Your task to perform on an android device: turn on location history Image 0: 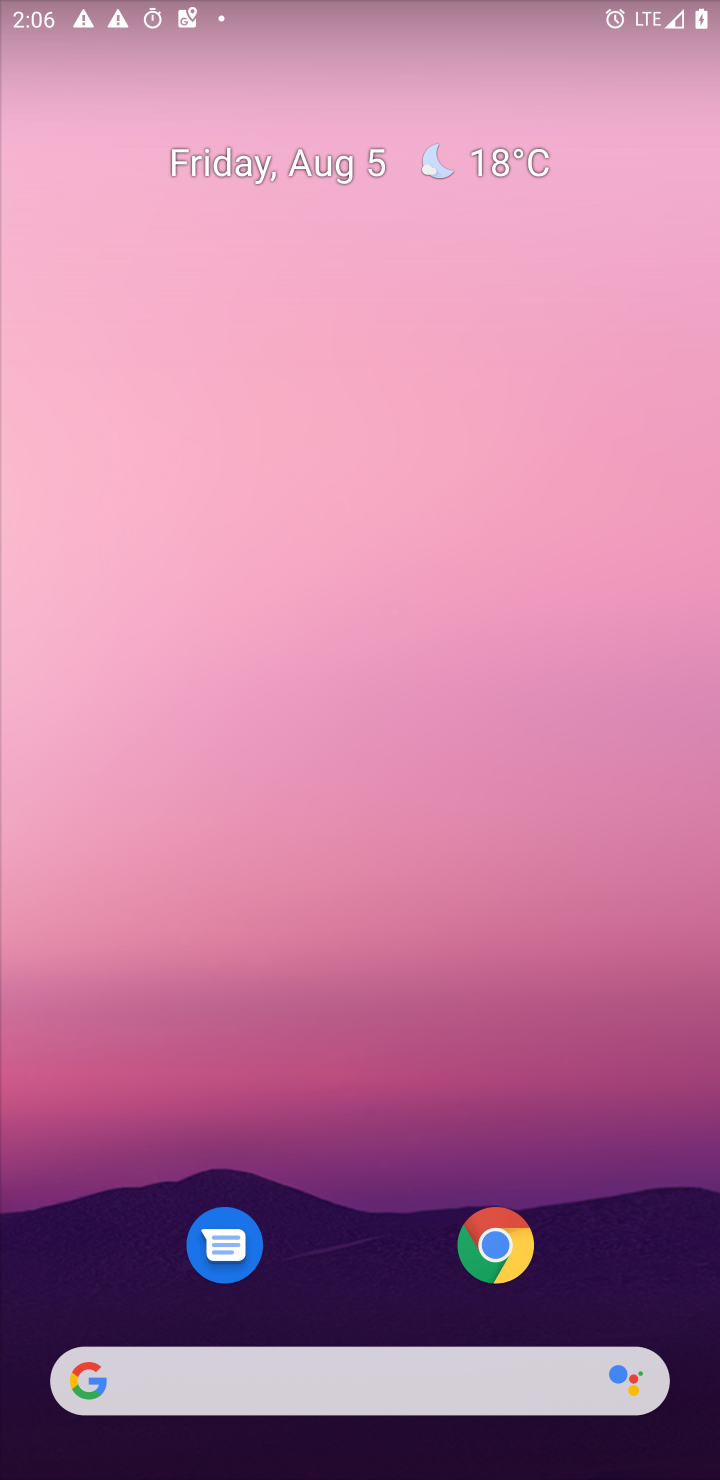
Step 0: drag from (439, 660) to (539, 80)
Your task to perform on an android device: turn on location history Image 1: 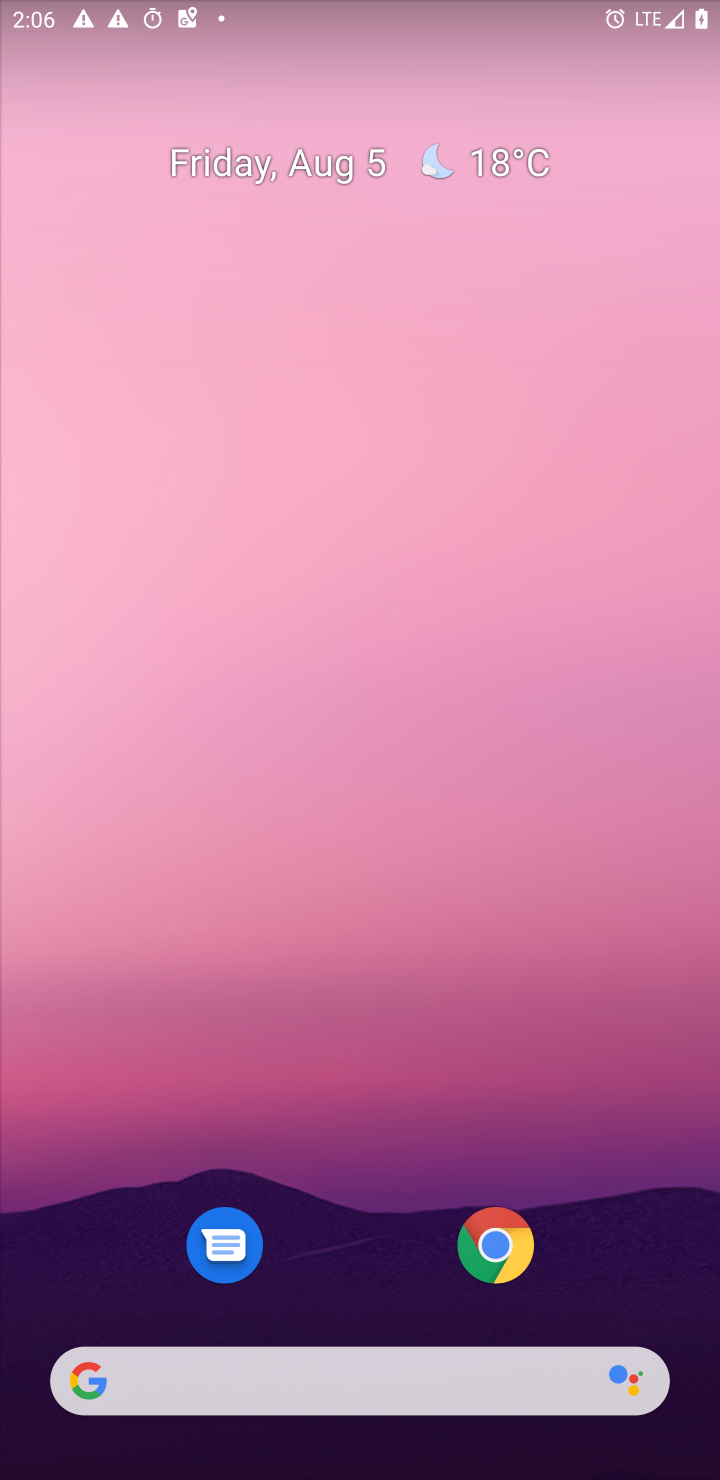
Step 1: drag from (361, 1301) to (545, 50)
Your task to perform on an android device: turn on location history Image 2: 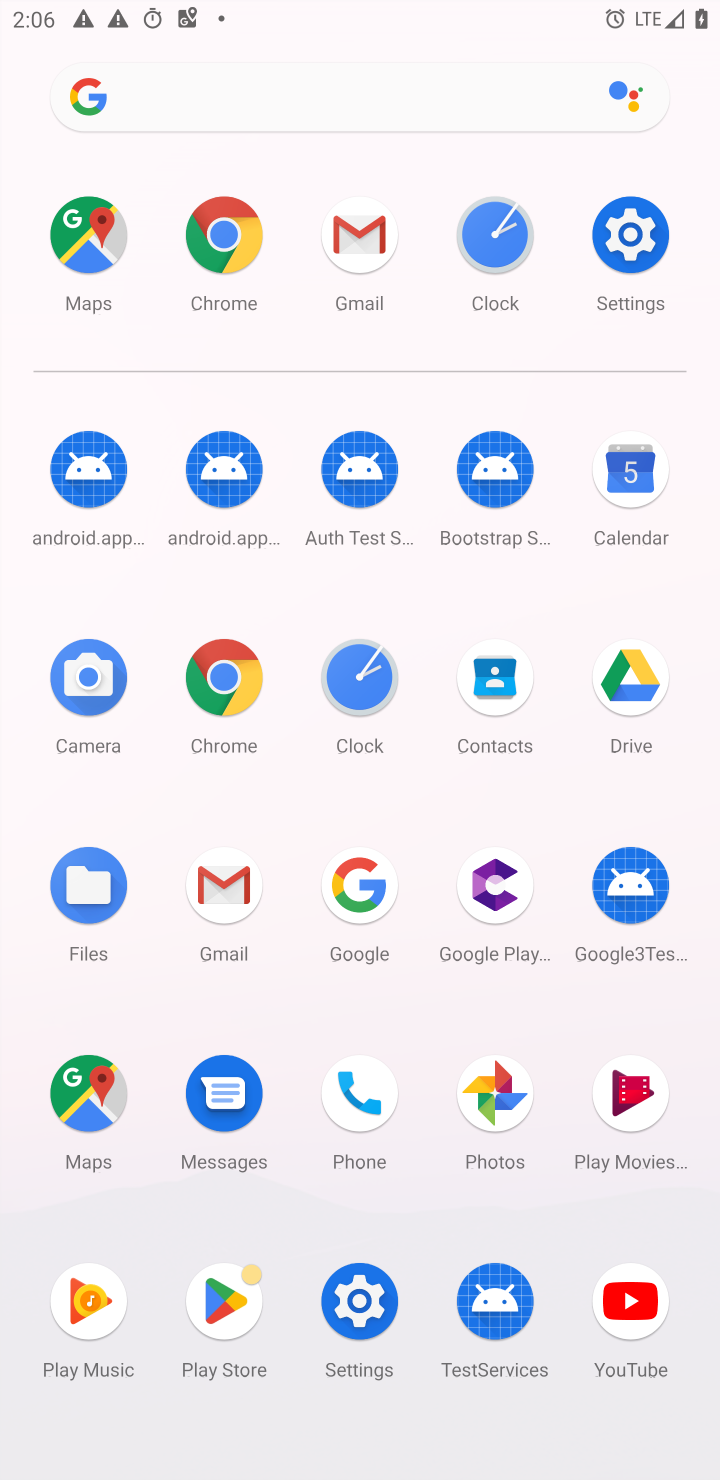
Step 2: click (621, 256)
Your task to perform on an android device: turn on location history Image 3: 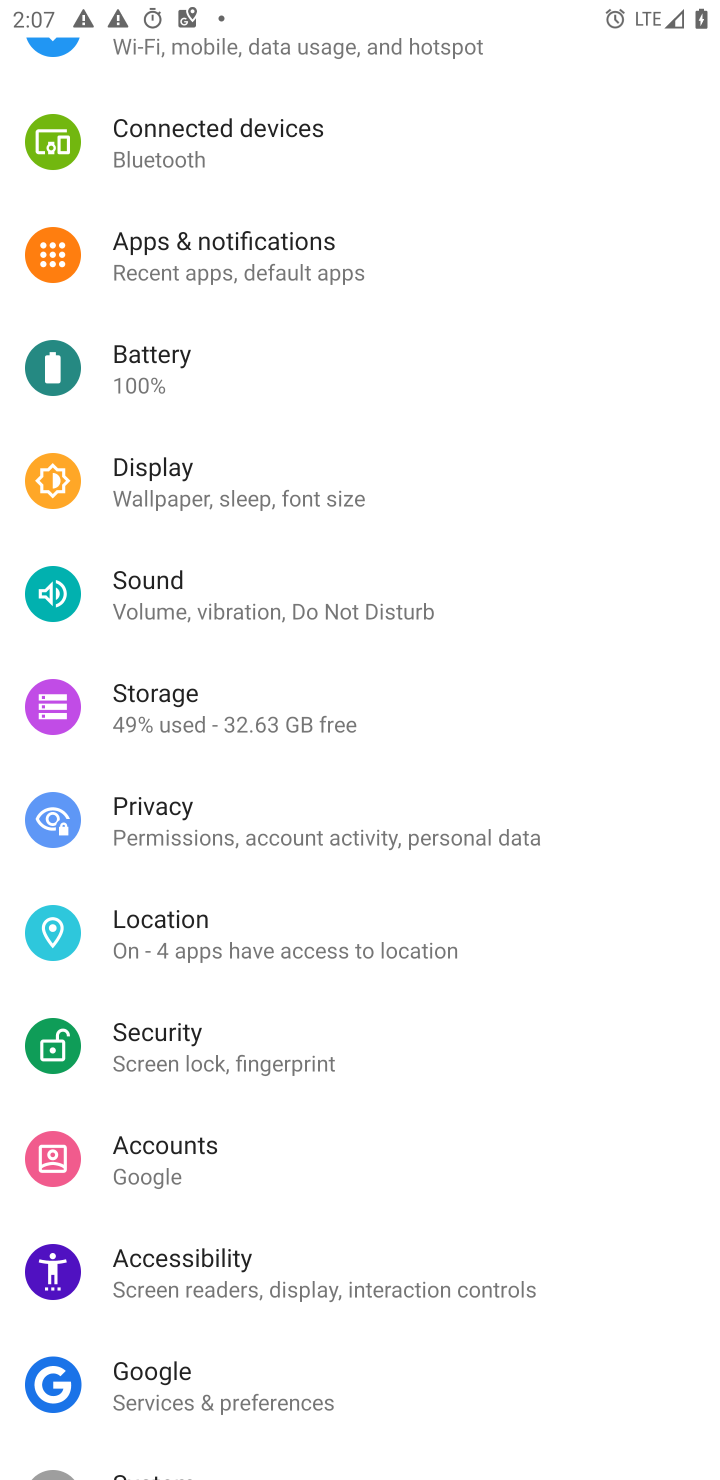
Step 3: click (155, 947)
Your task to perform on an android device: turn on location history Image 4: 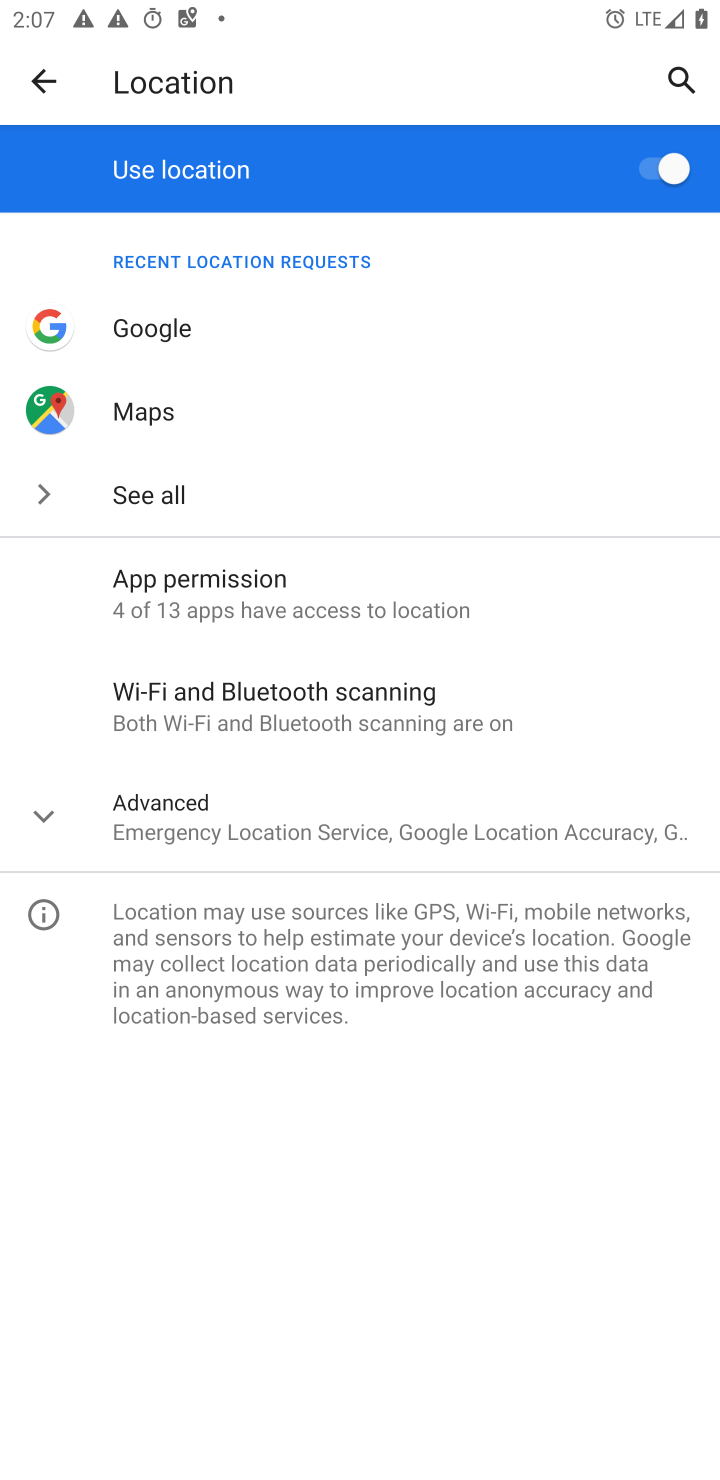
Step 4: click (160, 829)
Your task to perform on an android device: turn on location history Image 5: 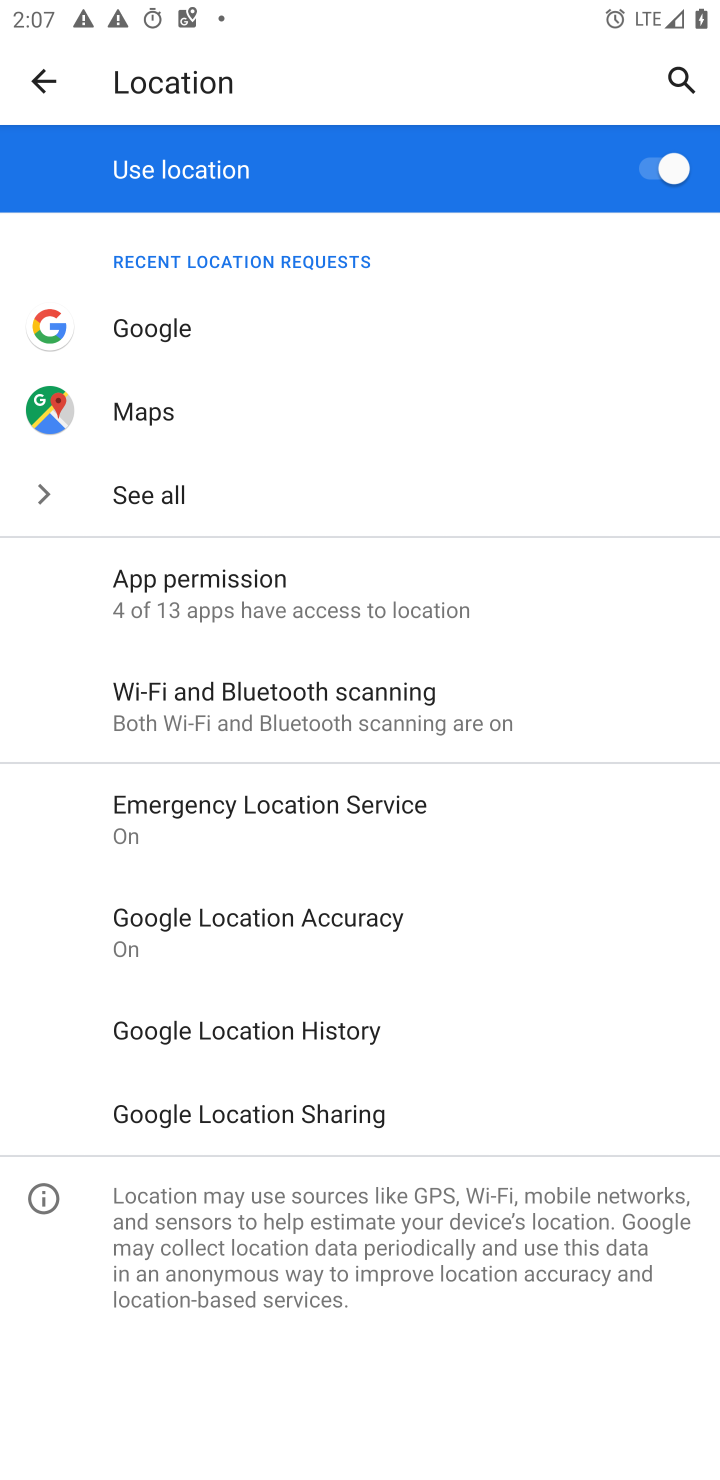
Step 5: click (259, 1037)
Your task to perform on an android device: turn on location history Image 6: 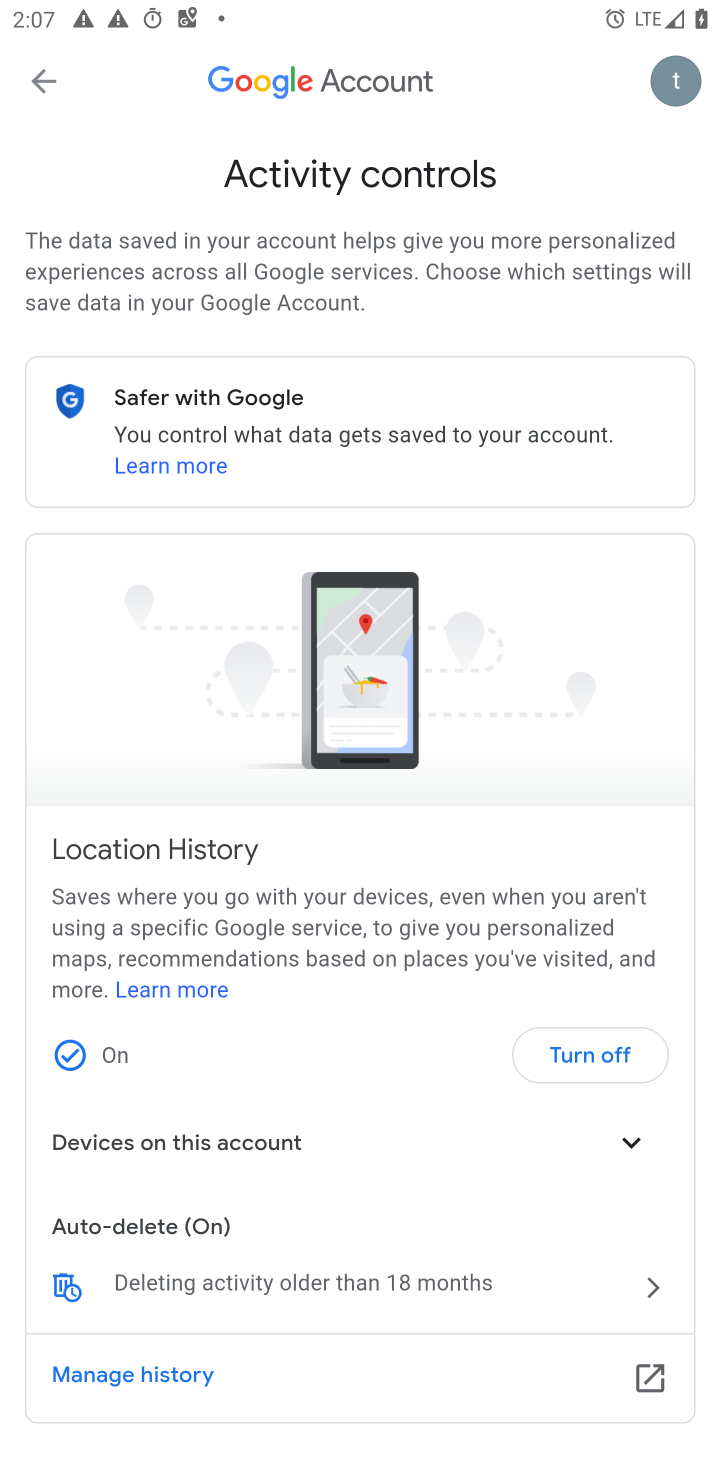
Step 6: task complete